Your task to perform on an android device: turn on airplane mode Image 0: 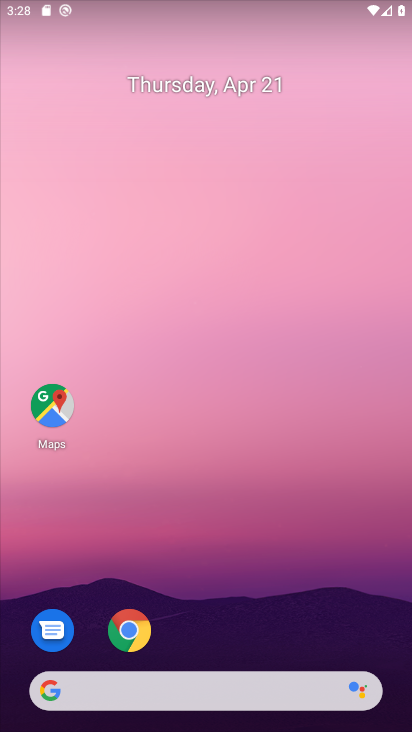
Step 0: drag from (211, 586) to (308, 120)
Your task to perform on an android device: turn on airplane mode Image 1: 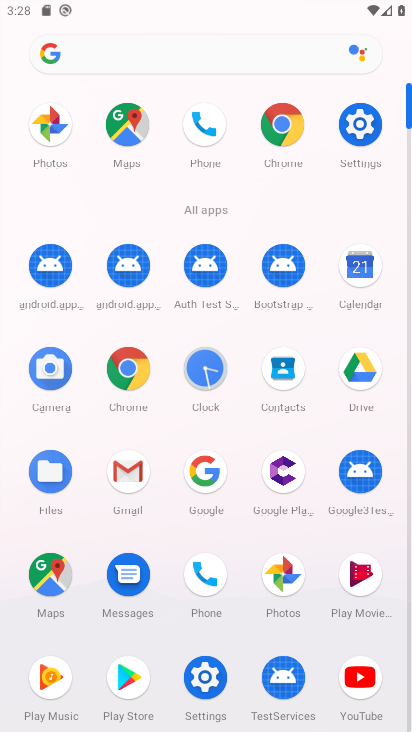
Step 1: click (197, 681)
Your task to perform on an android device: turn on airplane mode Image 2: 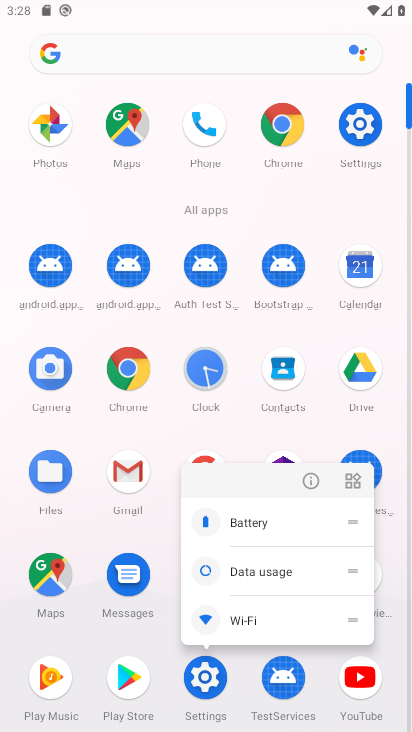
Step 2: click (314, 478)
Your task to perform on an android device: turn on airplane mode Image 3: 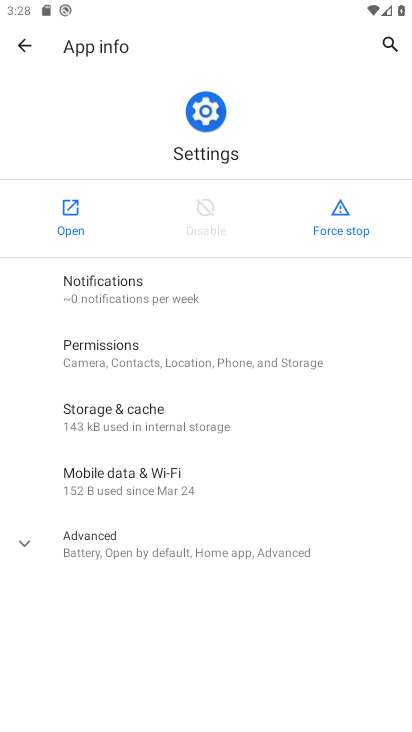
Step 3: click (74, 217)
Your task to perform on an android device: turn on airplane mode Image 4: 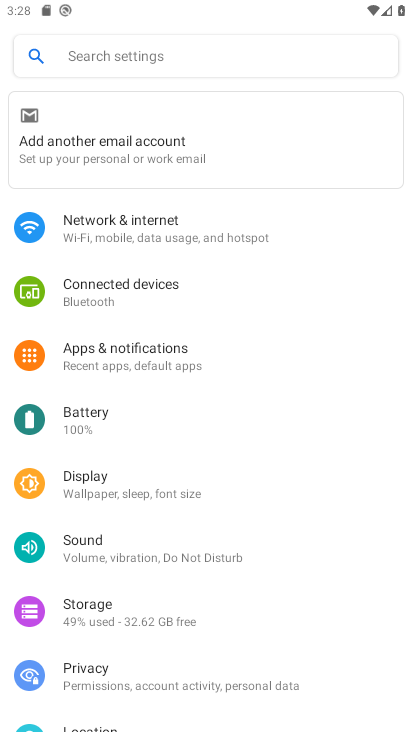
Step 4: click (137, 225)
Your task to perform on an android device: turn on airplane mode Image 5: 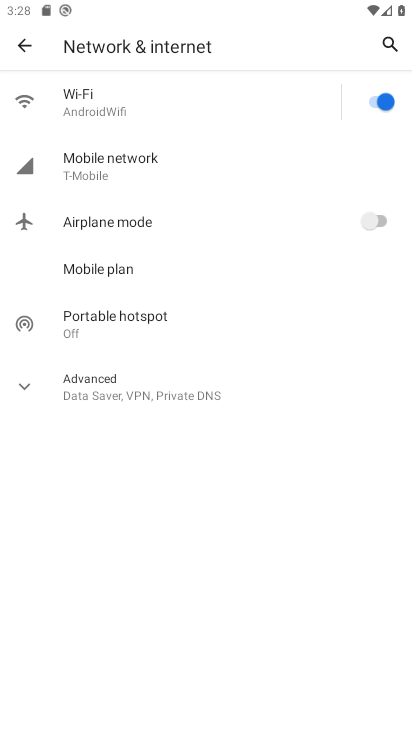
Step 5: click (167, 216)
Your task to perform on an android device: turn on airplane mode Image 6: 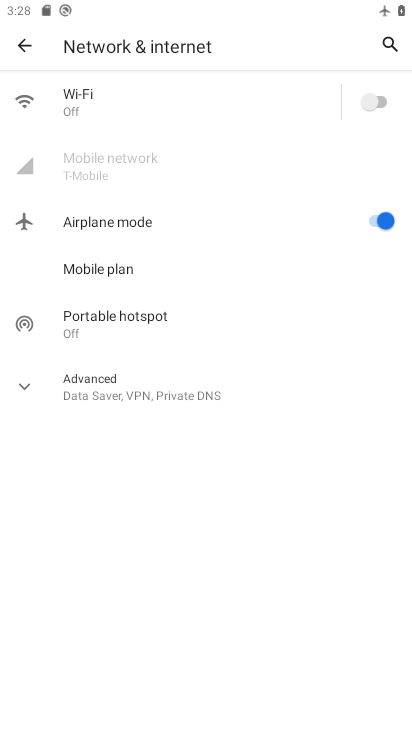
Step 6: task complete